Your task to perform on an android device: visit the assistant section in the google photos Image 0: 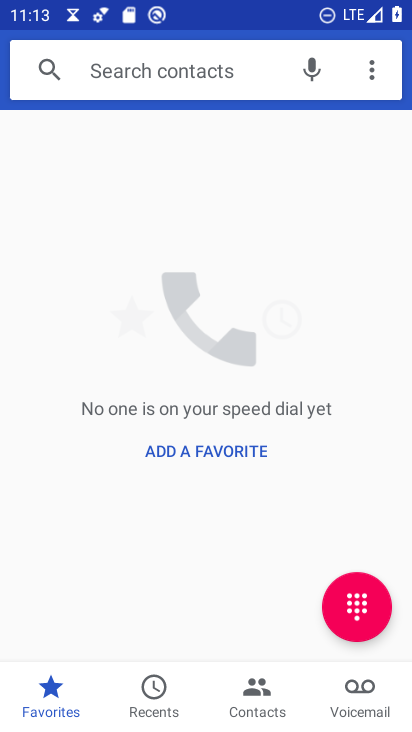
Step 0: press home button
Your task to perform on an android device: visit the assistant section in the google photos Image 1: 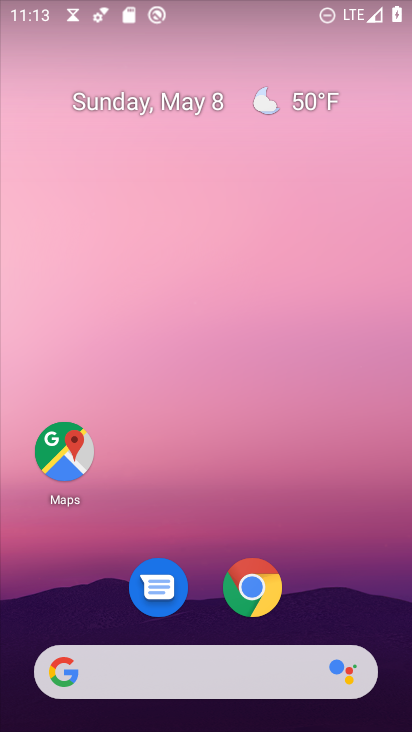
Step 1: drag from (335, 603) to (217, 173)
Your task to perform on an android device: visit the assistant section in the google photos Image 2: 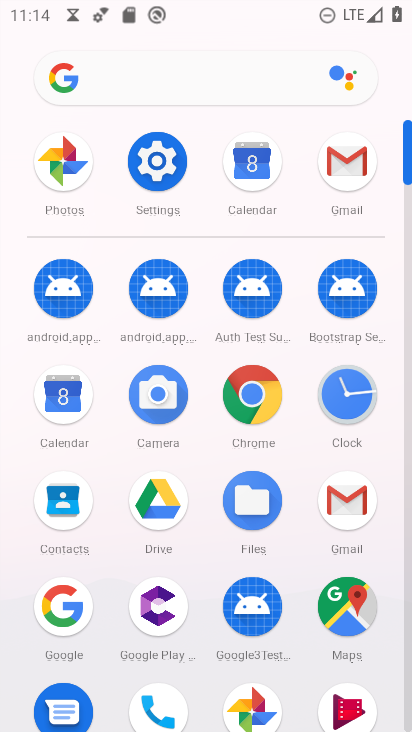
Step 2: click (254, 706)
Your task to perform on an android device: visit the assistant section in the google photos Image 3: 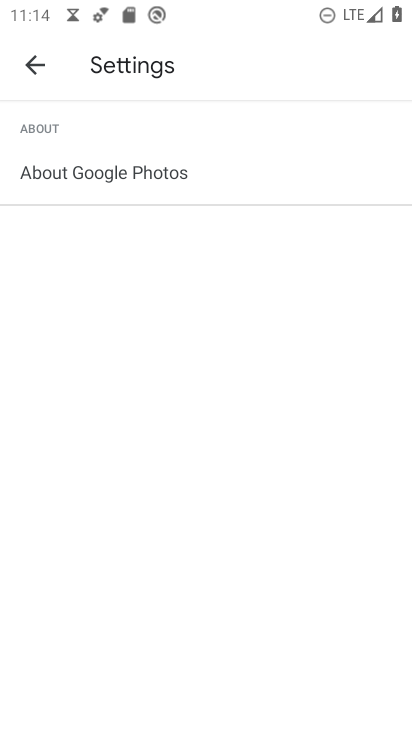
Step 3: press back button
Your task to perform on an android device: visit the assistant section in the google photos Image 4: 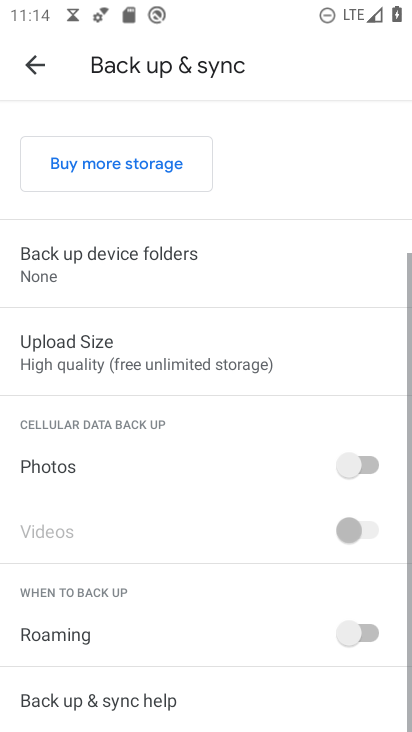
Step 4: press back button
Your task to perform on an android device: visit the assistant section in the google photos Image 5: 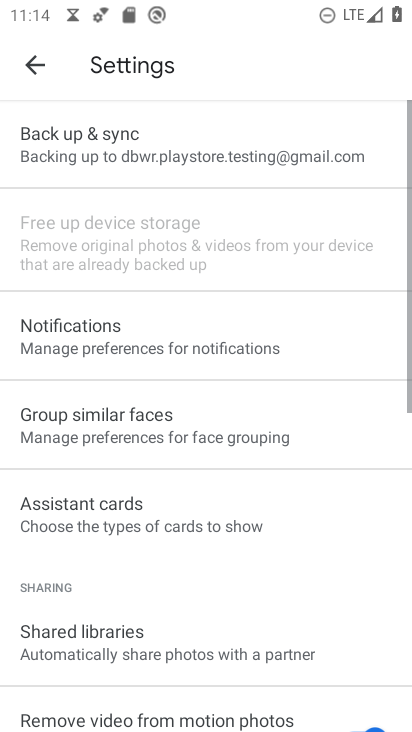
Step 5: press back button
Your task to perform on an android device: visit the assistant section in the google photos Image 6: 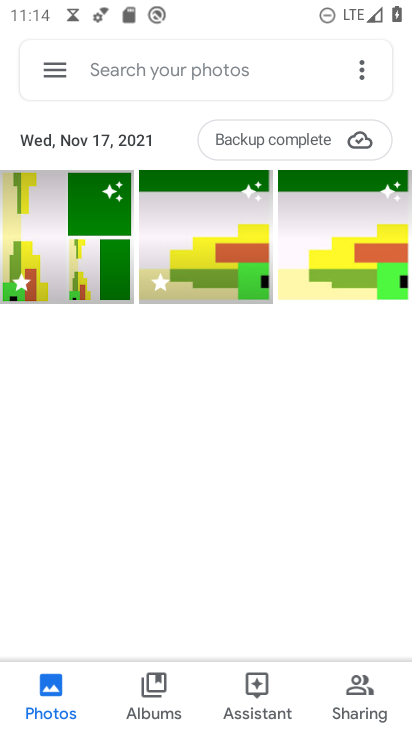
Step 6: click (261, 694)
Your task to perform on an android device: visit the assistant section in the google photos Image 7: 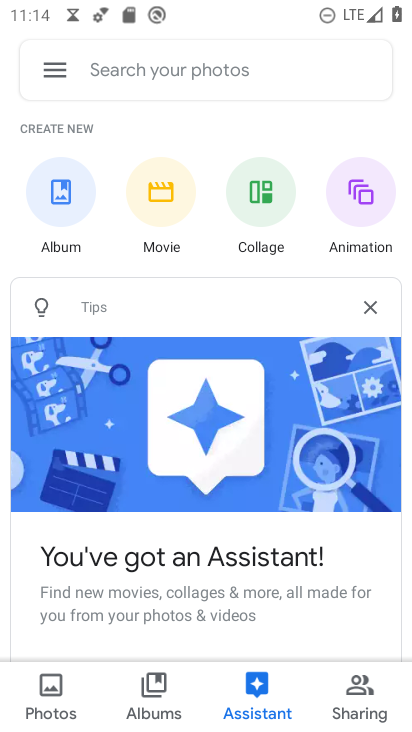
Step 7: task complete